Your task to perform on an android device: search for starred emails in the gmail app Image 0: 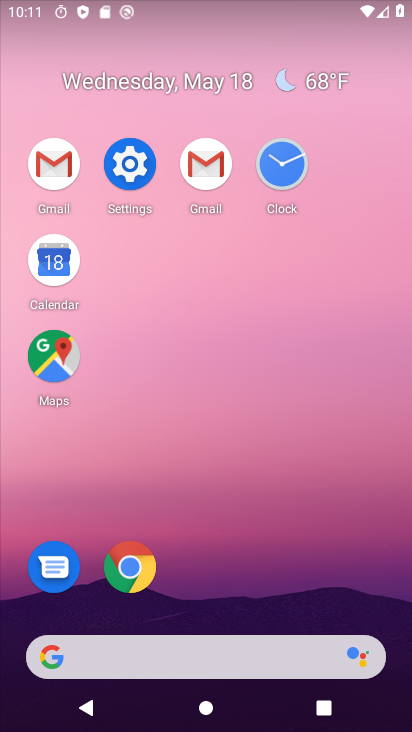
Step 0: click (198, 165)
Your task to perform on an android device: search for starred emails in the gmail app Image 1: 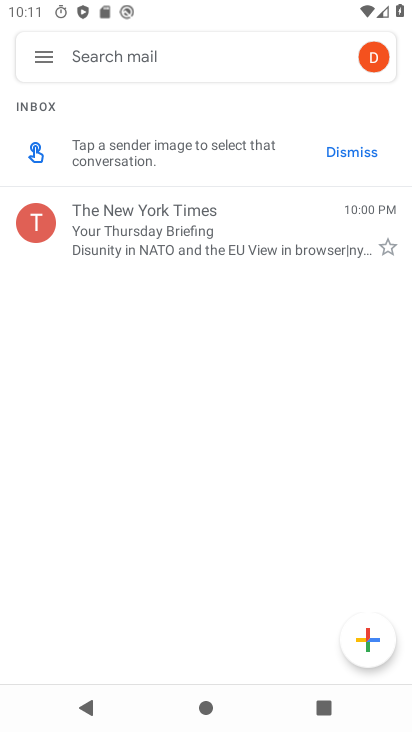
Step 1: click (37, 54)
Your task to perform on an android device: search for starred emails in the gmail app Image 2: 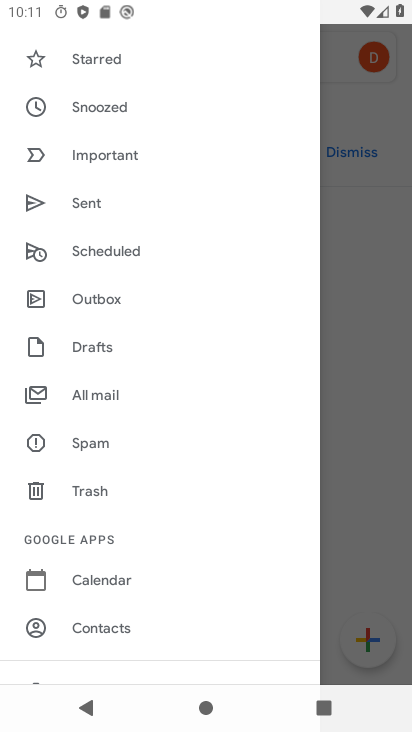
Step 2: click (117, 391)
Your task to perform on an android device: search for starred emails in the gmail app Image 3: 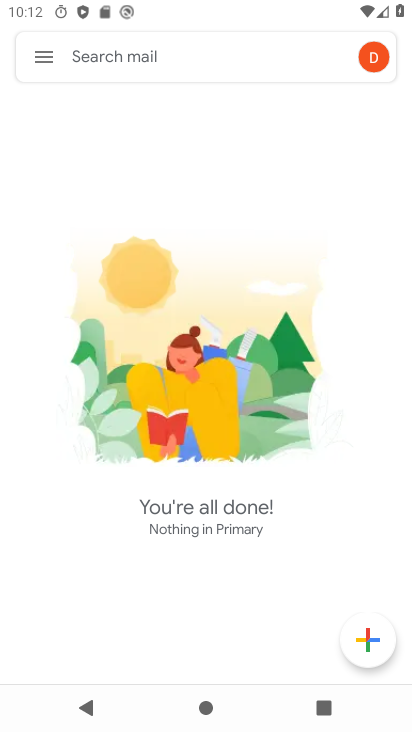
Step 3: task complete